Your task to perform on an android device: delete browsing data in the chrome app Image 0: 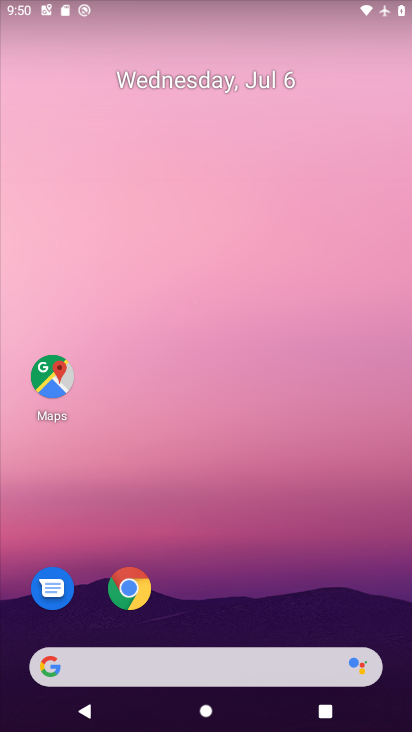
Step 0: click (135, 592)
Your task to perform on an android device: delete browsing data in the chrome app Image 1: 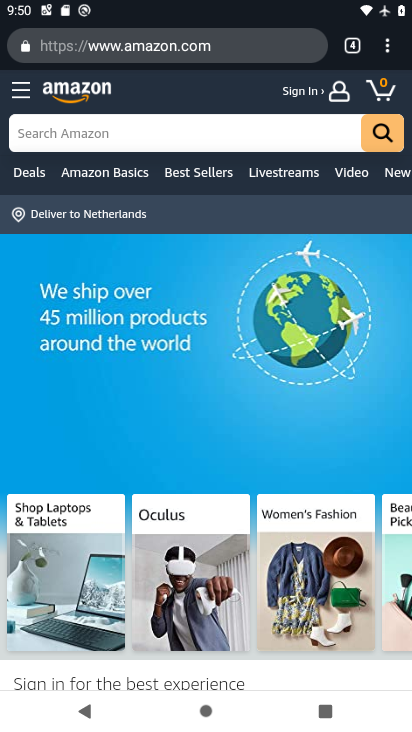
Step 1: click (387, 63)
Your task to perform on an android device: delete browsing data in the chrome app Image 2: 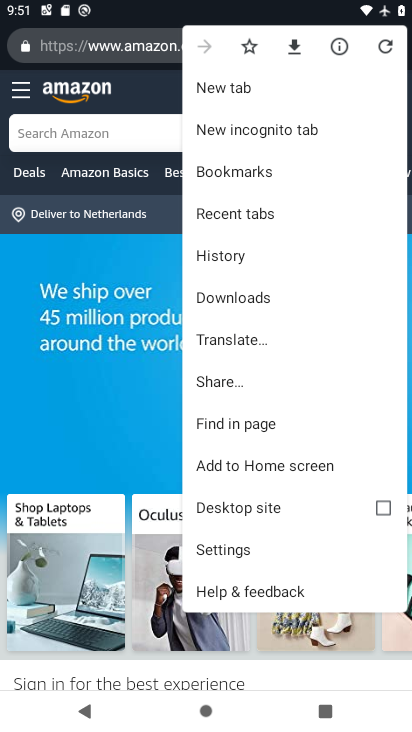
Step 2: click (240, 547)
Your task to perform on an android device: delete browsing data in the chrome app Image 3: 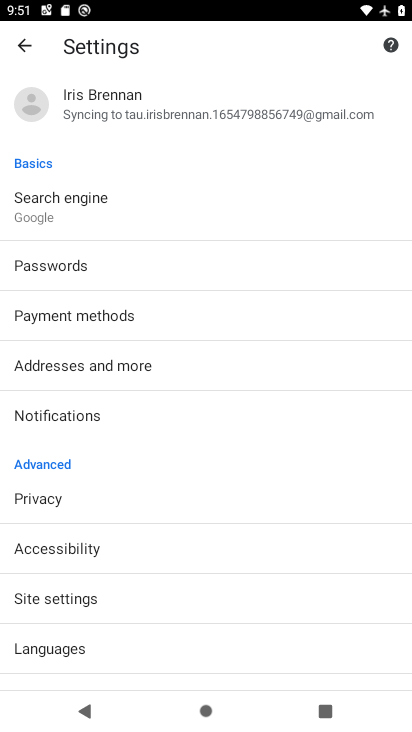
Step 3: click (54, 493)
Your task to perform on an android device: delete browsing data in the chrome app Image 4: 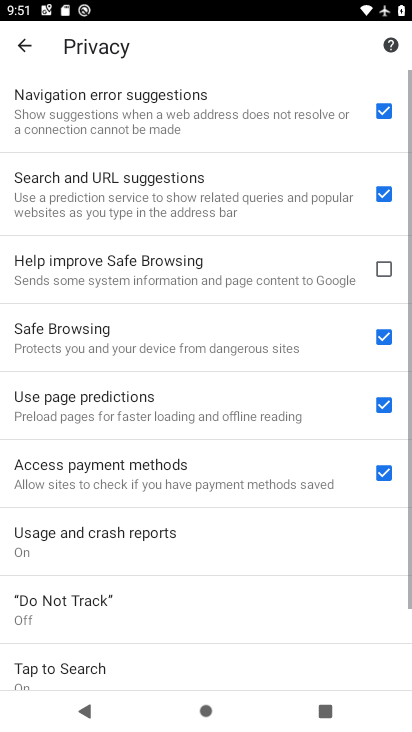
Step 4: drag from (180, 624) to (364, 68)
Your task to perform on an android device: delete browsing data in the chrome app Image 5: 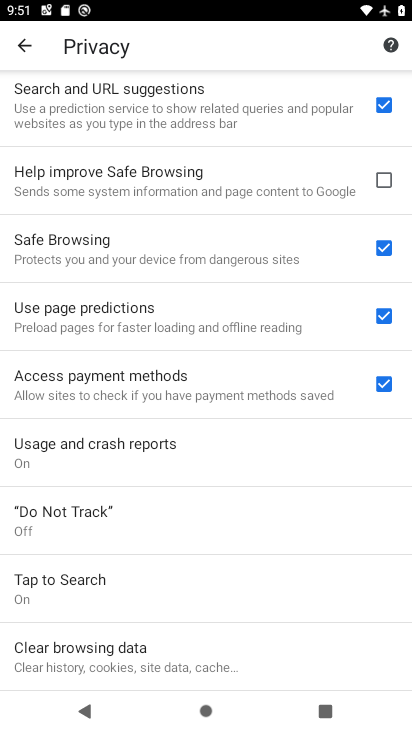
Step 5: click (144, 658)
Your task to perform on an android device: delete browsing data in the chrome app Image 6: 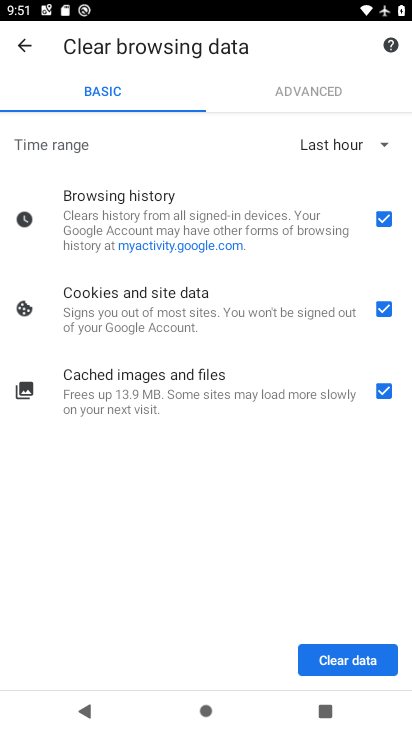
Step 6: click (385, 303)
Your task to perform on an android device: delete browsing data in the chrome app Image 7: 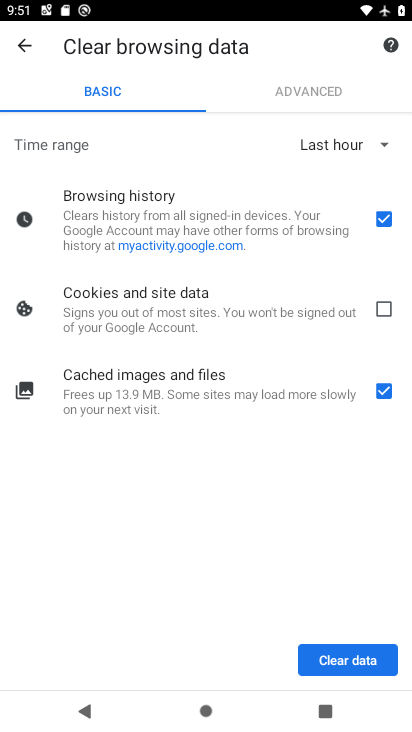
Step 7: click (385, 400)
Your task to perform on an android device: delete browsing data in the chrome app Image 8: 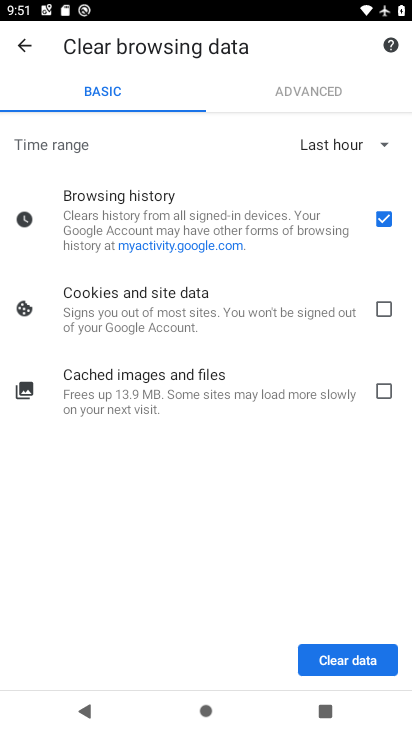
Step 8: click (348, 662)
Your task to perform on an android device: delete browsing data in the chrome app Image 9: 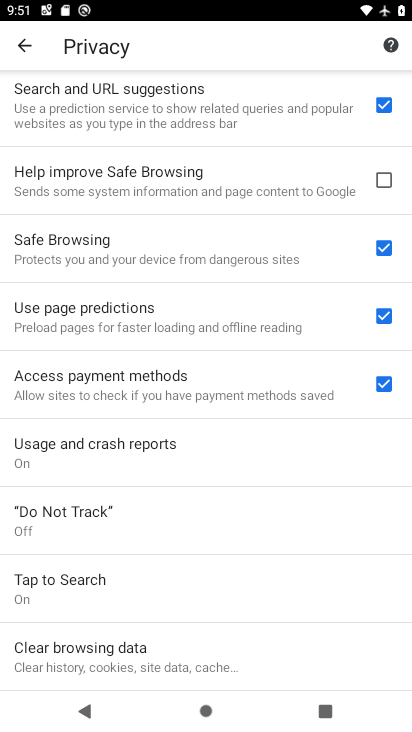
Step 9: task complete